Your task to perform on an android device: turn off data saver in the chrome app Image 0: 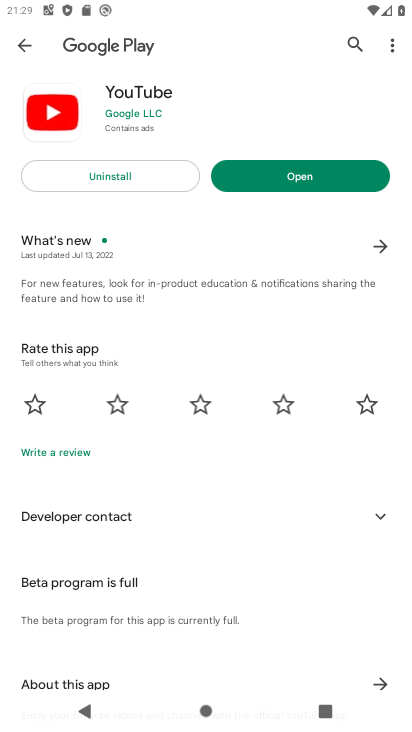
Step 0: press home button
Your task to perform on an android device: turn off data saver in the chrome app Image 1: 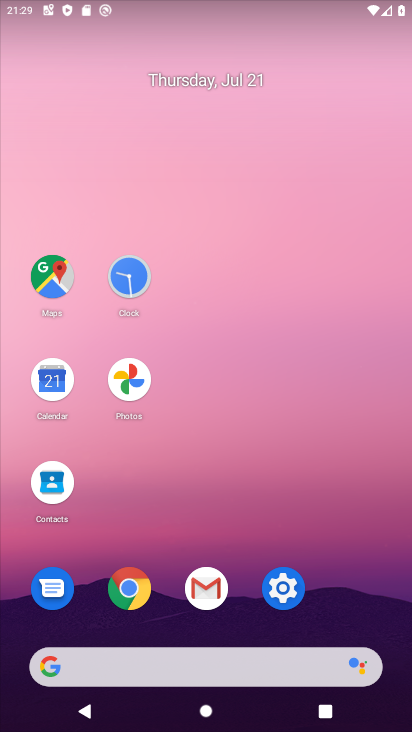
Step 1: click (130, 589)
Your task to perform on an android device: turn off data saver in the chrome app Image 2: 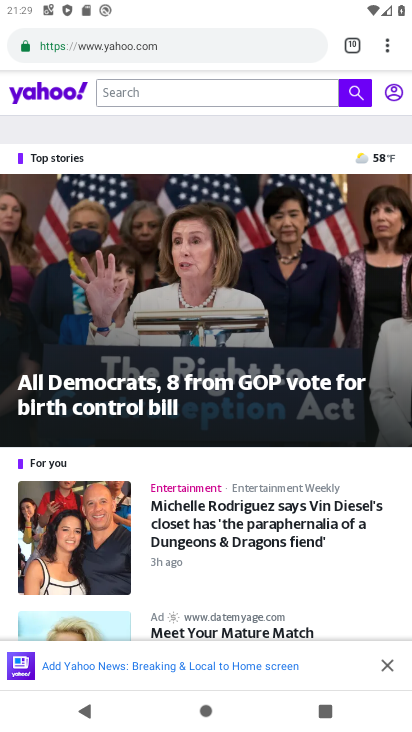
Step 2: click (388, 46)
Your task to perform on an android device: turn off data saver in the chrome app Image 3: 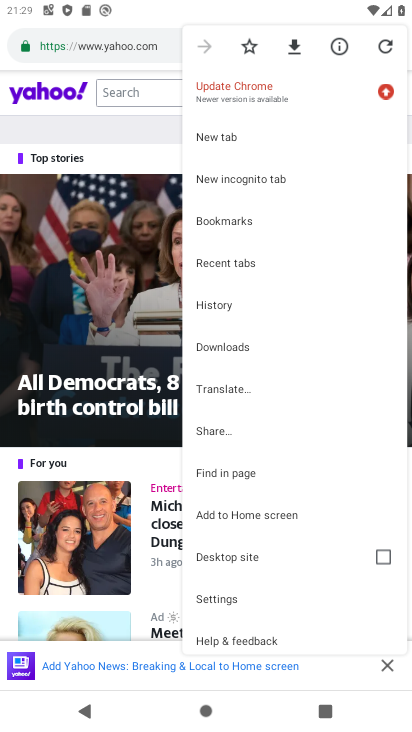
Step 3: click (220, 595)
Your task to perform on an android device: turn off data saver in the chrome app Image 4: 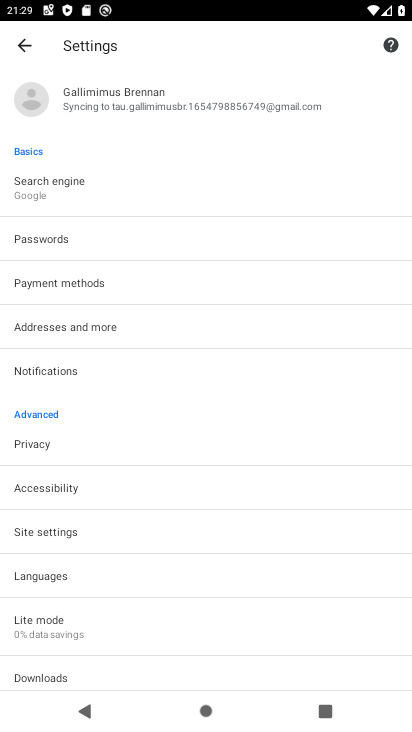
Step 4: click (37, 619)
Your task to perform on an android device: turn off data saver in the chrome app Image 5: 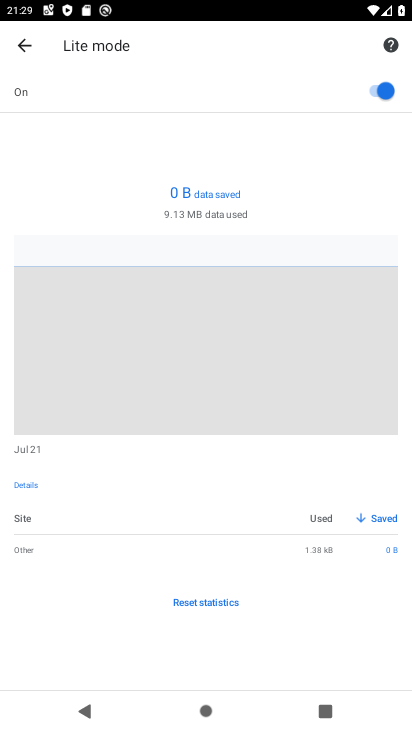
Step 5: click (380, 93)
Your task to perform on an android device: turn off data saver in the chrome app Image 6: 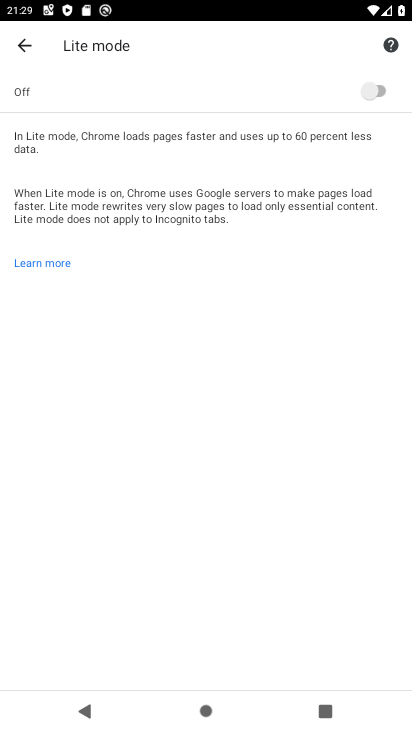
Step 6: task complete